Your task to perform on an android device: turn on javascript in the chrome app Image 0: 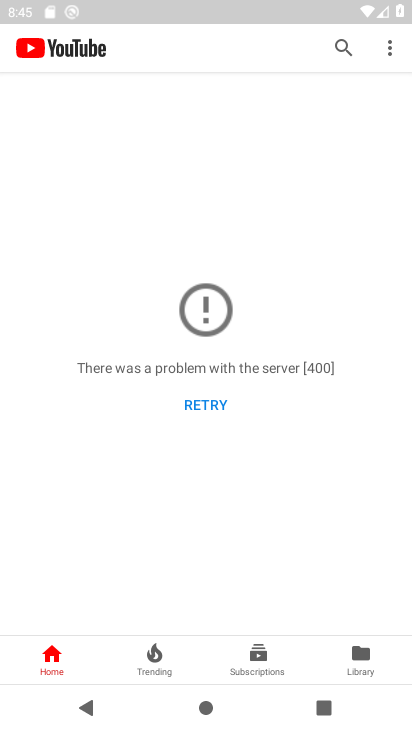
Step 0: press home button
Your task to perform on an android device: turn on javascript in the chrome app Image 1: 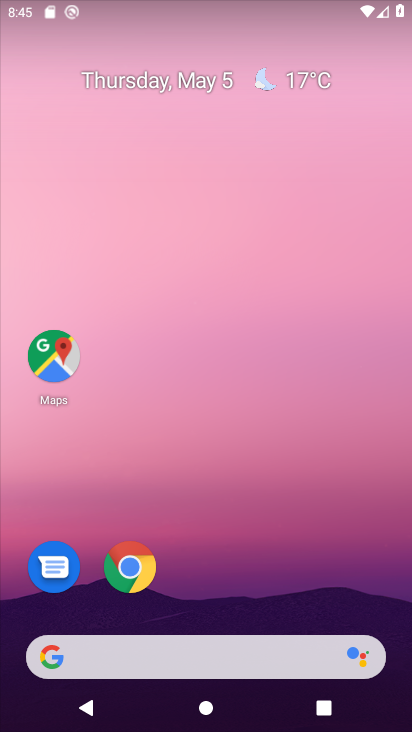
Step 1: drag from (240, 550) to (204, 42)
Your task to perform on an android device: turn on javascript in the chrome app Image 2: 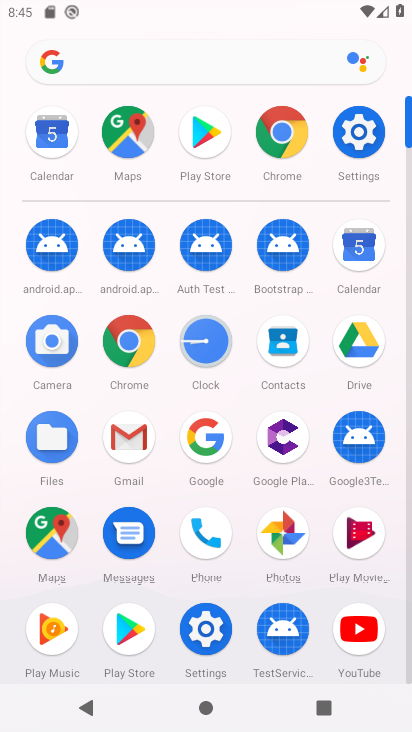
Step 2: click (270, 142)
Your task to perform on an android device: turn on javascript in the chrome app Image 3: 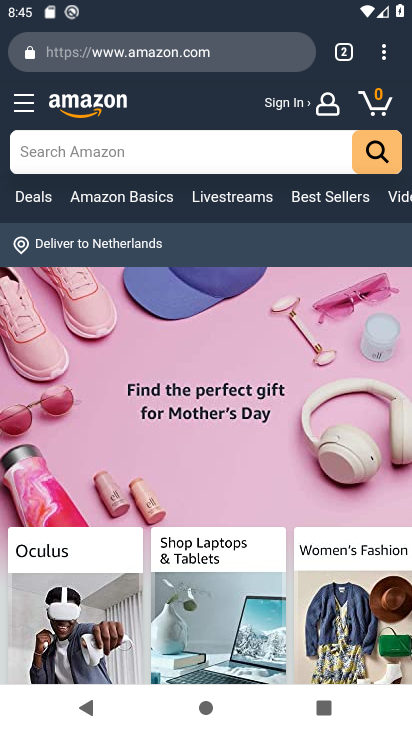
Step 3: drag from (381, 61) to (263, 577)
Your task to perform on an android device: turn on javascript in the chrome app Image 4: 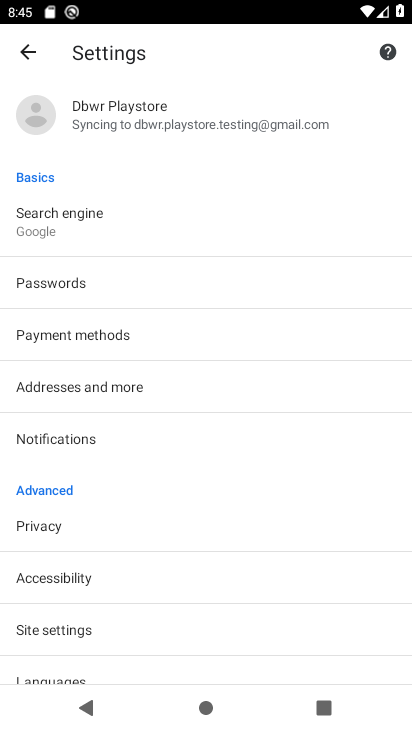
Step 4: click (226, 623)
Your task to perform on an android device: turn on javascript in the chrome app Image 5: 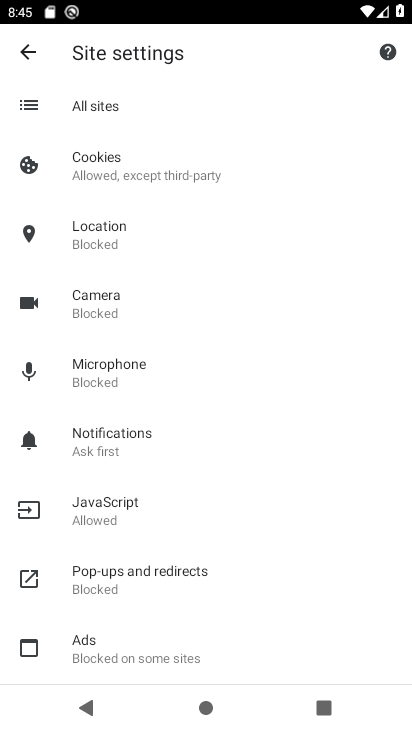
Step 5: click (184, 512)
Your task to perform on an android device: turn on javascript in the chrome app Image 6: 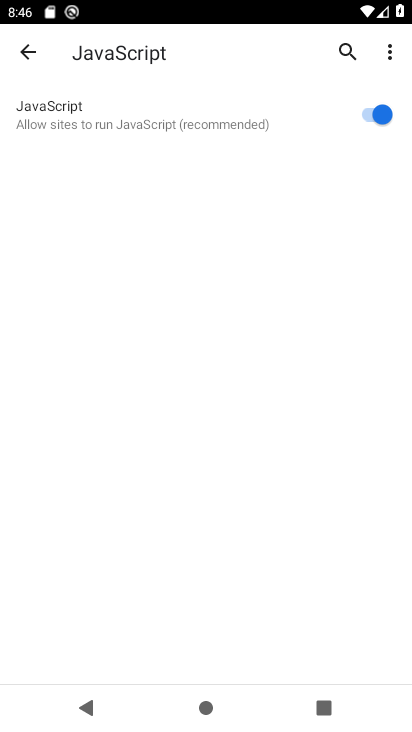
Step 6: task complete